Your task to perform on an android device: all mails in gmail Image 0: 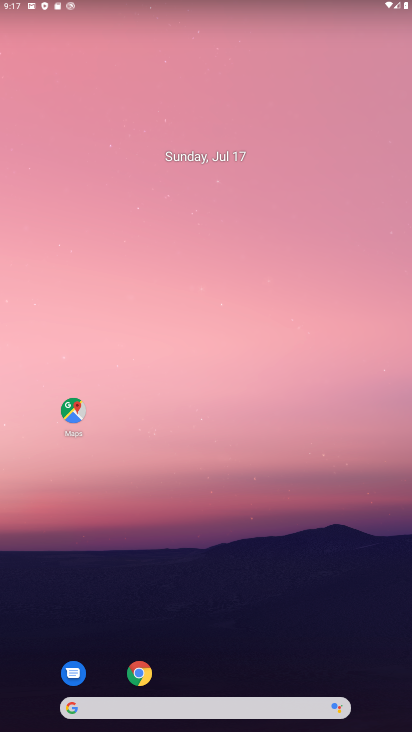
Step 0: drag from (234, 602) to (186, 176)
Your task to perform on an android device: all mails in gmail Image 1: 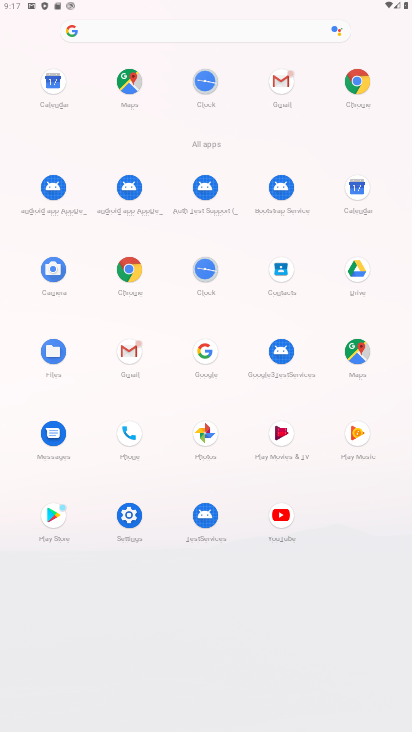
Step 1: click (281, 81)
Your task to perform on an android device: all mails in gmail Image 2: 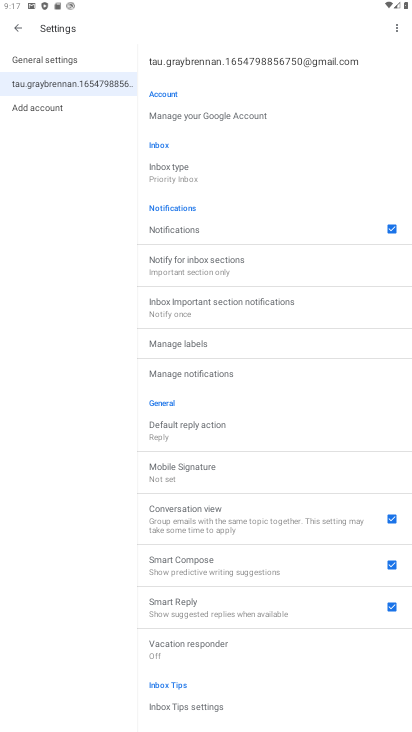
Step 2: click (13, 23)
Your task to perform on an android device: all mails in gmail Image 3: 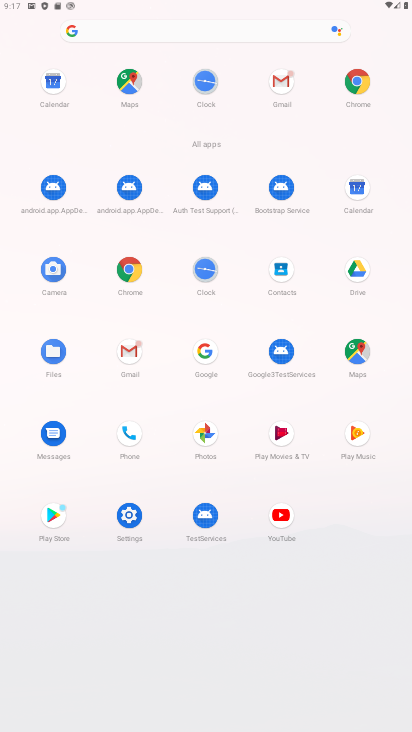
Step 3: click (125, 352)
Your task to perform on an android device: all mails in gmail Image 4: 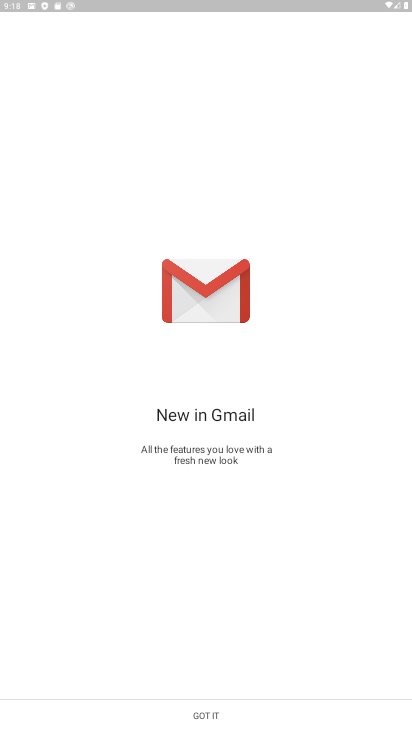
Step 4: click (207, 709)
Your task to perform on an android device: all mails in gmail Image 5: 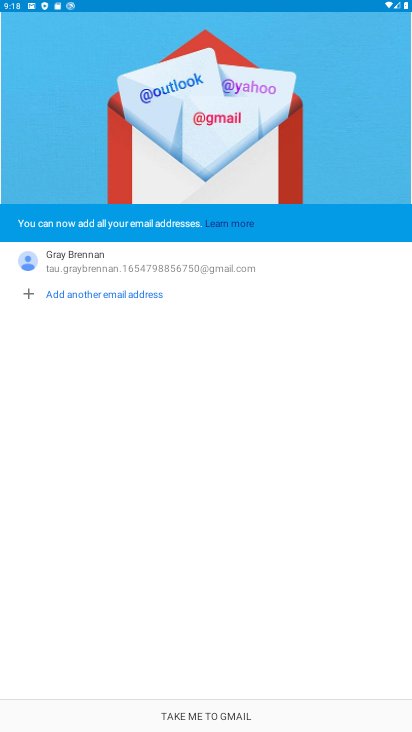
Step 5: click (207, 709)
Your task to perform on an android device: all mails in gmail Image 6: 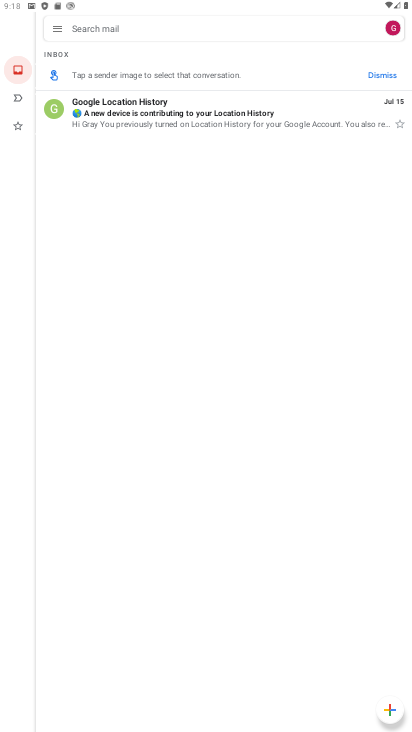
Step 6: click (59, 25)
Your task to perform on an android device: all mails in gmail Image 7: 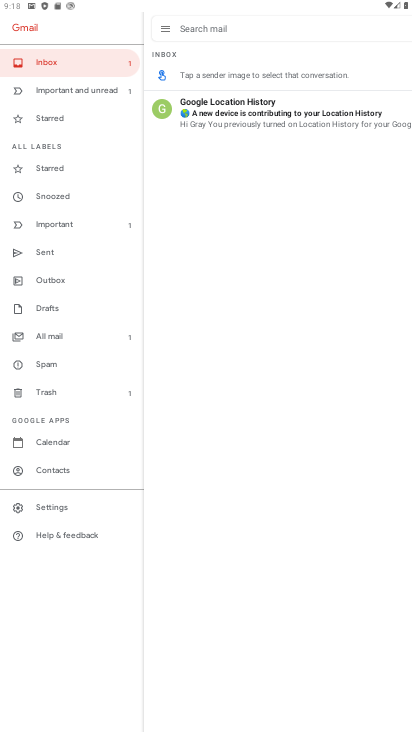
Step 7: click (58, 334)
Your task to perform on an android device: all mails in gmail Image 8: 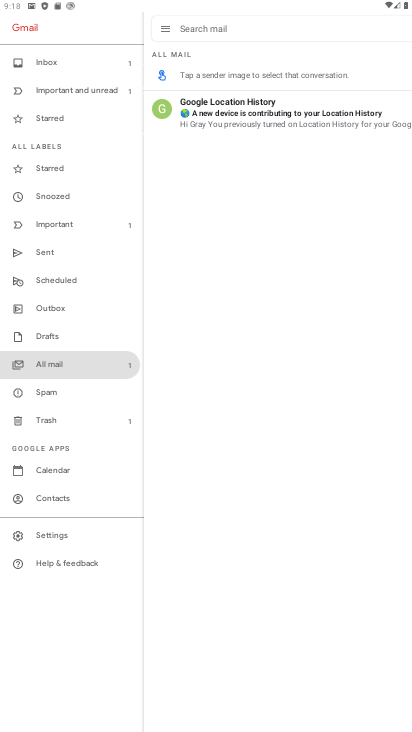
Step 8: task complete